Your task to perform on an android device: add a label to a message in the gmail app Image 0: 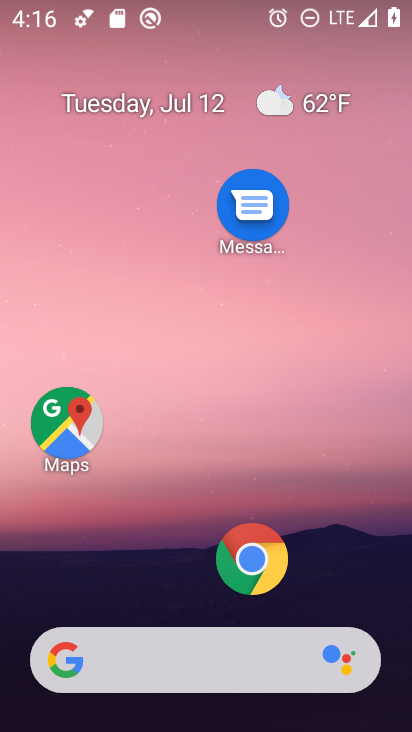
Step 0: drag from (157, 615) to (201, 35)
Your task to perform on an android device: add a label to a message in the gmail app Image 1: 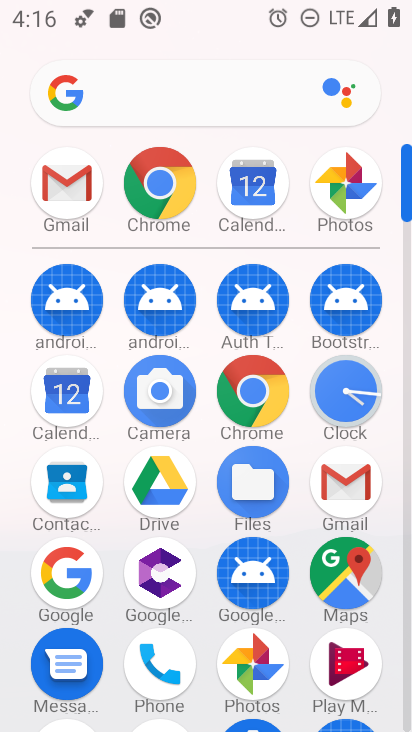
Step 1: click (63, 178)
Your task to perform on an android device: add a label to a message in the gmail app Image 2: 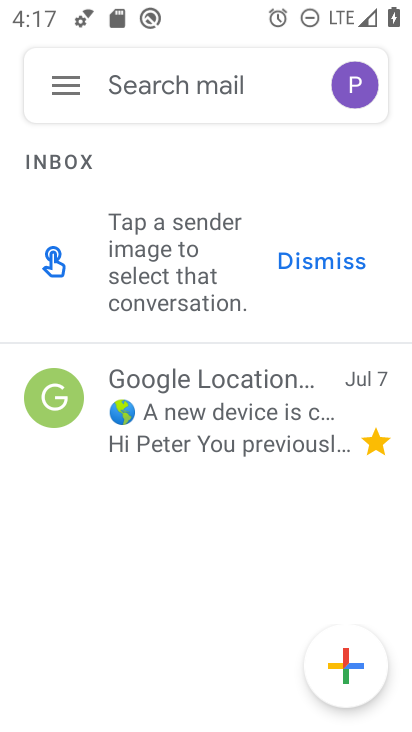
Step 2: click (184, 402)
Your task to perform on an android device: add a label to a message in the gmail app Image 3: 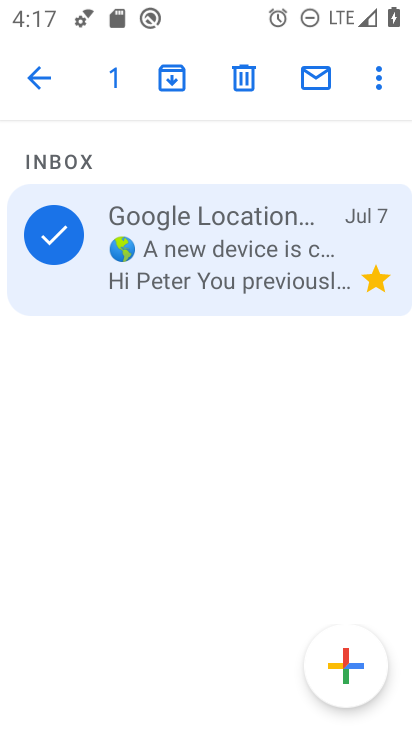
Step 3: click (377, 59)
Your task to perform on an android device: add a label to a message in the gmail app Image 4: 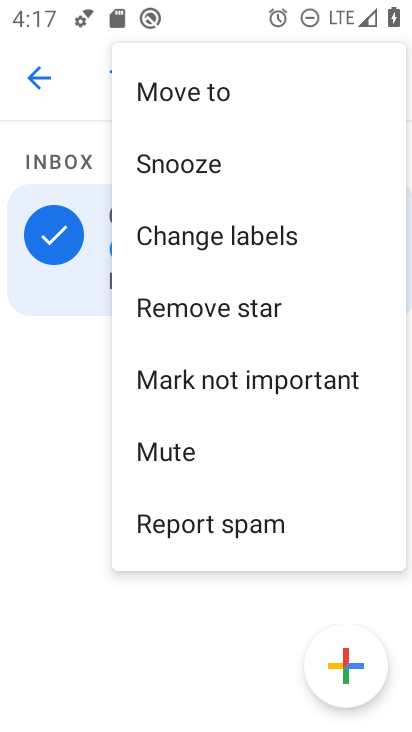
Step 4: click (279, 230)
Your task to perform on an android device: add a label to a message in the gmail app Image 5: 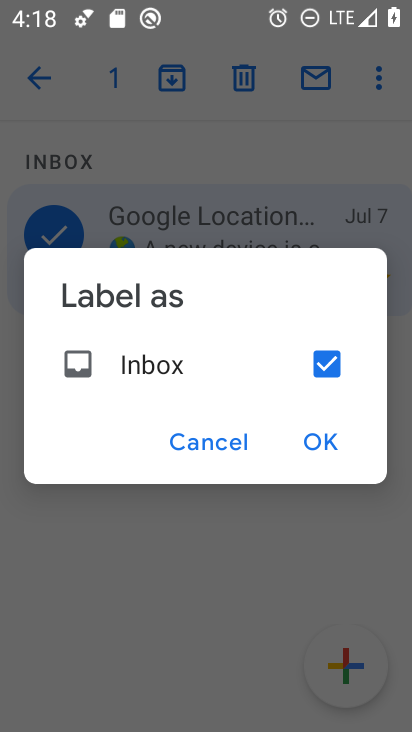
Step 5: click (315, 440)
Your task to perform on an android device: add a label to a message in the gmail app Image 6: 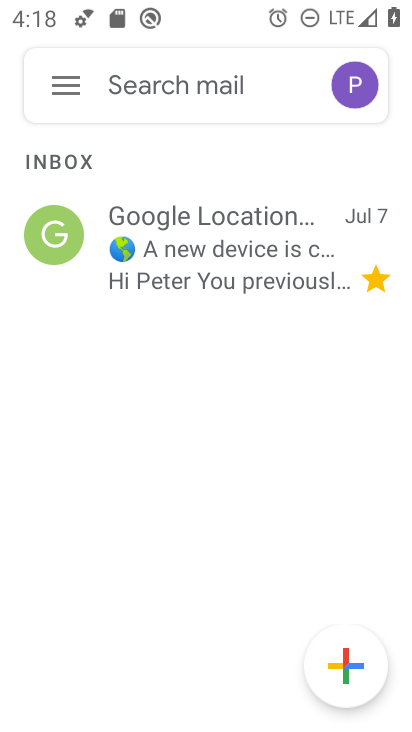
Step 6: task complete